Your task to perform on an android device: Open maps Image 0: 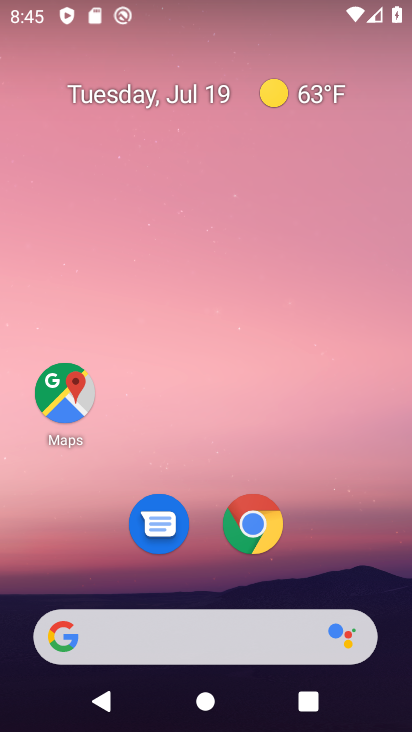
Step 0: click (50, 390)
Your task to perform on an android device: Open maps Image 1: 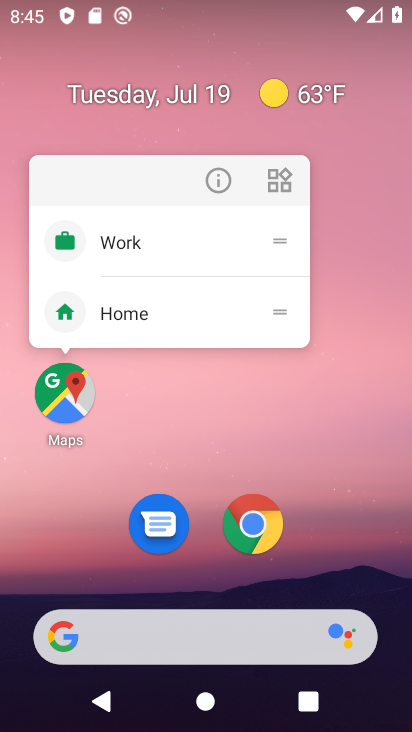
Step 1: click (59, 393)
Your task to perform on an android device: Open maps Image 2: 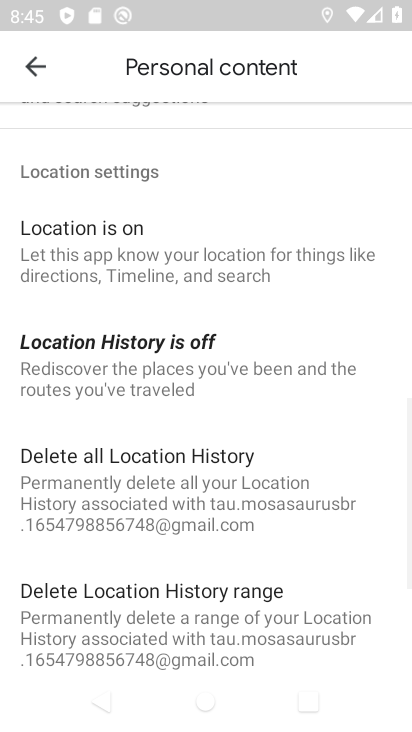
Step 2: click (39, 67)
Your task to perform on an android device: Open maps Image 3: 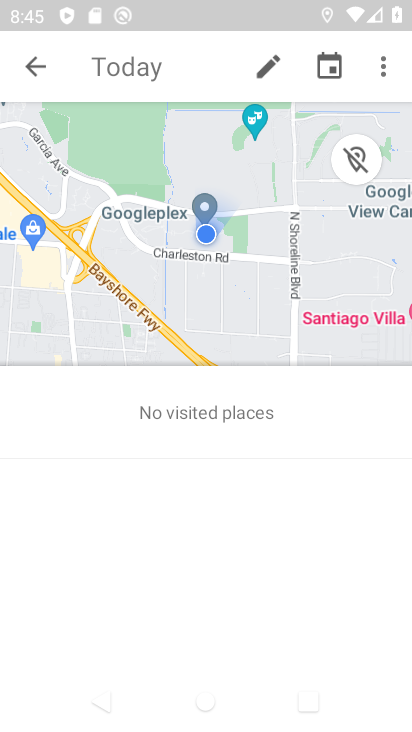
Step 3: click (39, 68)
Your task to perform on an android device: Open maps Image 4: 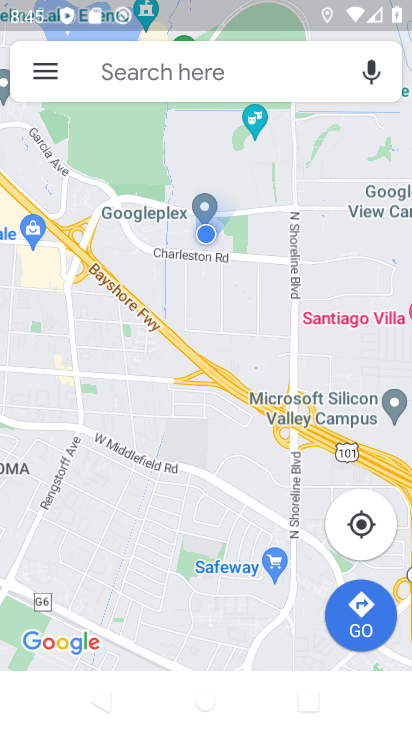
Step 4: task complete